Your task to perform on an android device: Open the calendar and show me this week's events Image 0: 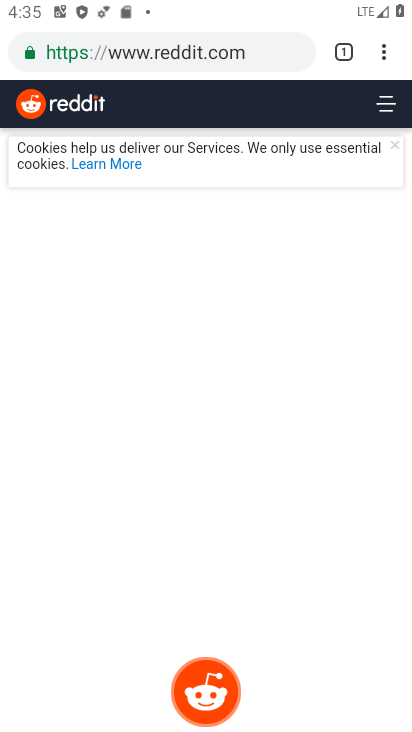
Step 0: task complete